Your task to perform on an android device: turn notification dots off Image 0: 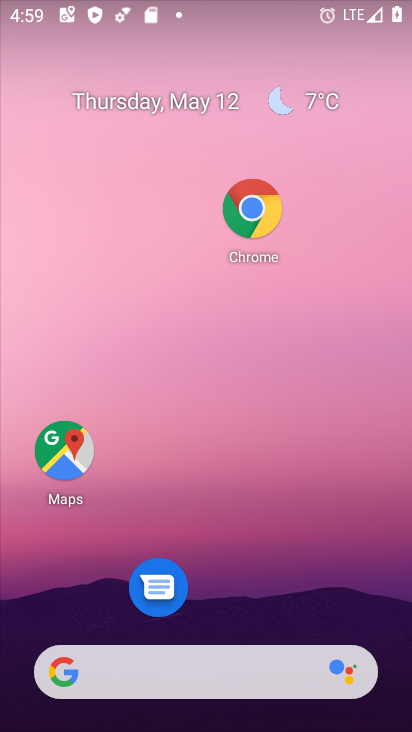
Step 0: drag from (250, 598) to (32, 129)
Your task to perform on an android device: turn notification dots off Image 1: 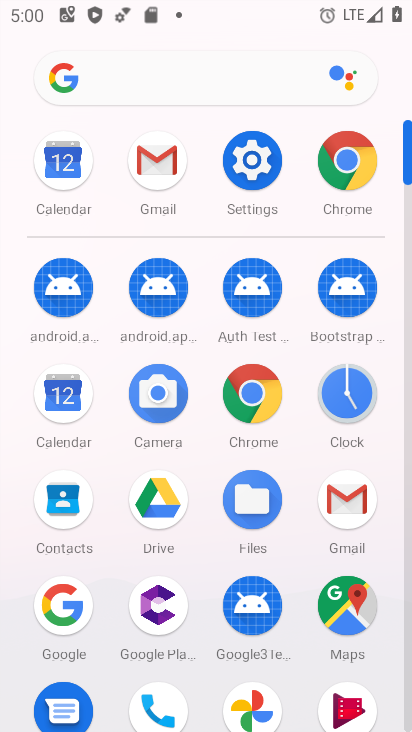
Step 1: click (256, 175)
Your task to perform on an android device: turn notification dots off Image 2: 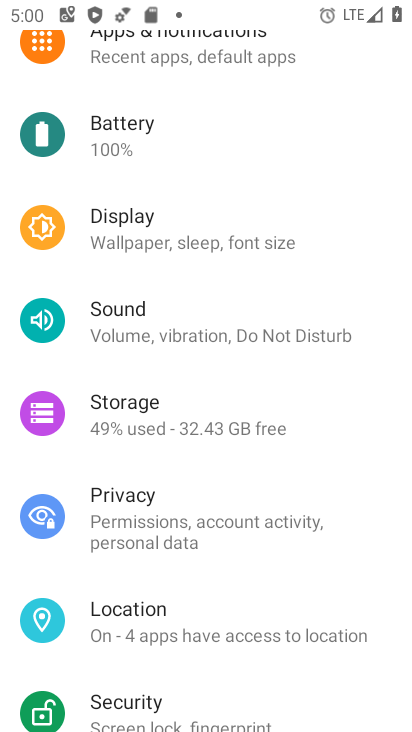
Step 2: drag from (198, 566) to (219, 239)
Your task to perform on an android device: turn notification dots off Image 3: 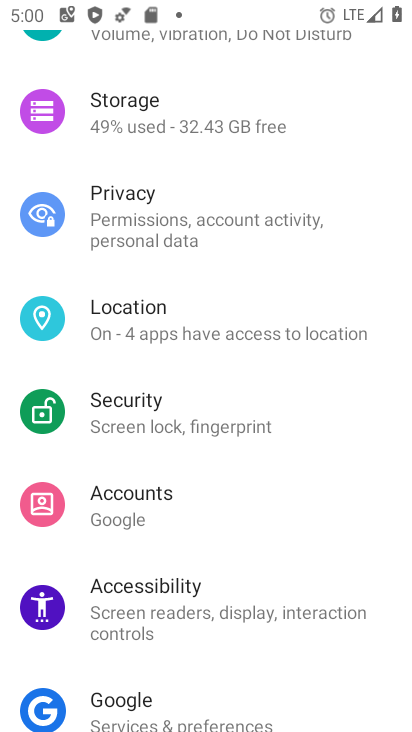
Step 3: drag from (248, 127) to (227, 570)
Your task to perform on an android device: turn notification dots off Image 4: 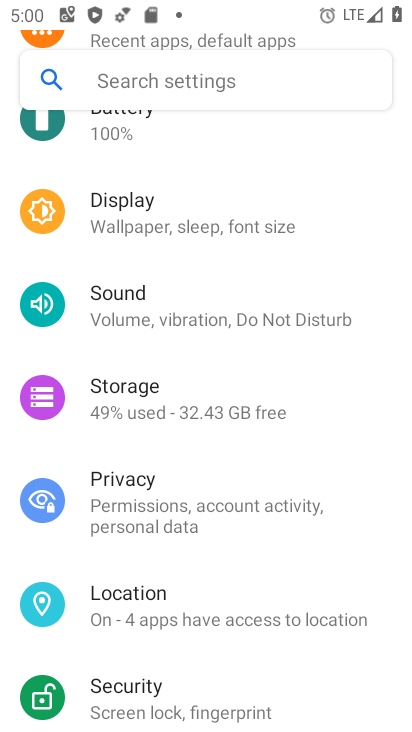
Step 4: drag from (209, 213) to (205, 594)
Your task to perform on an android device: turn notification dots off Image 5: 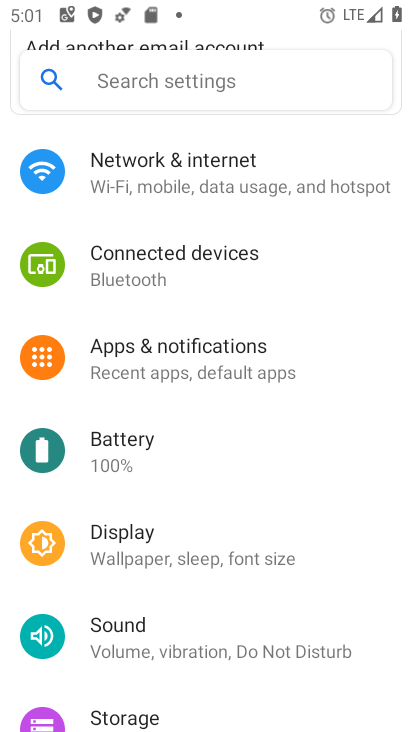
Step 5: drag from (205, 594) to (235, 347)
Your task to perform on an android device: turn notification dots off Image 6: 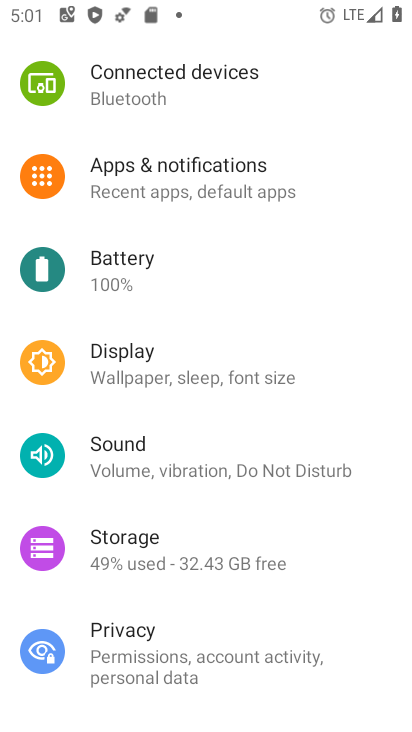
Step 6: drag from (143, 265) to (153, 585)
Your task to perform on an android device: turn notification dots off Image 7: 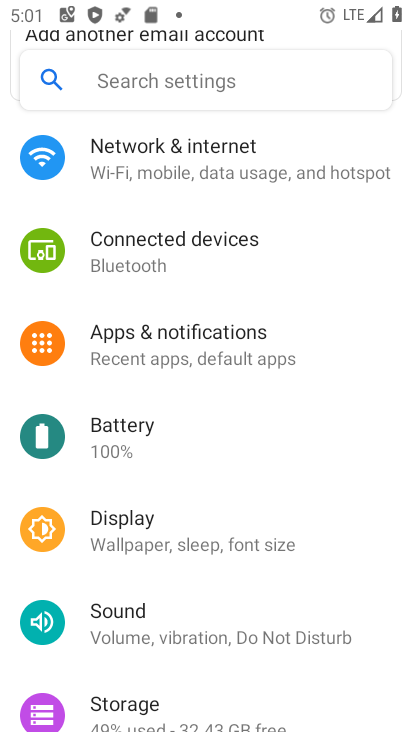
Step 7: click (150, 344)
Your task to perform on an android device: turn notification dots off Image 8: 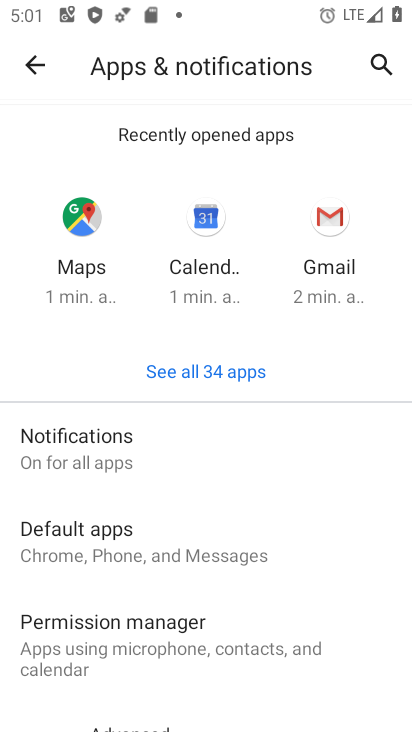
Step 8: drag from (240, 625) to (267, 236)
Your task to perform on an android device: turn notification dots off Image 9: 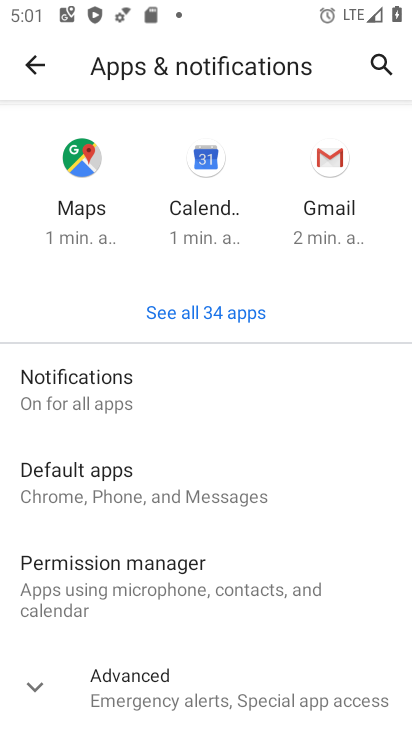
Step 9: click (104, 399)
Your task to perform on an android device: turn notification dots off Image 10: 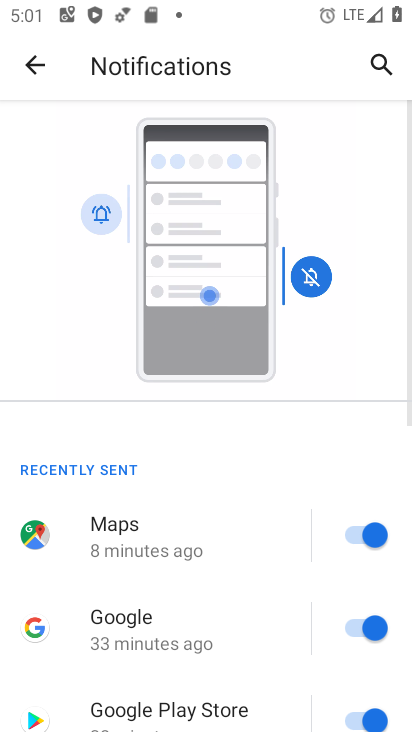
Step 10: drag from (222, 625) to (216, 194)
Your task to perform on an android device: turn notification dots off Image 11: 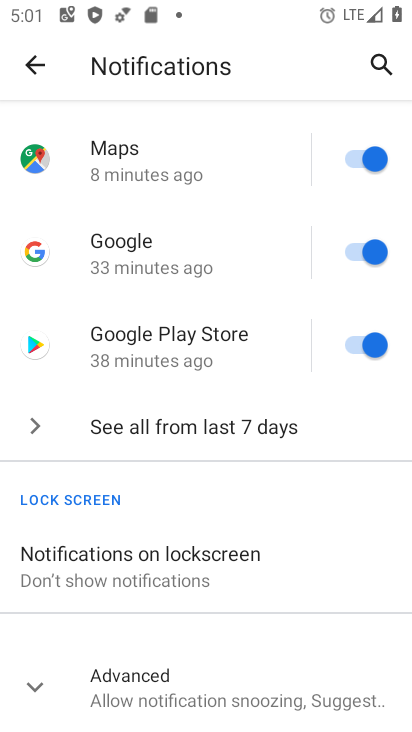
Step 11: drag from (236, 347) to (251, 215)
Your task to perform on an android device: turn notification dots off Image 12: 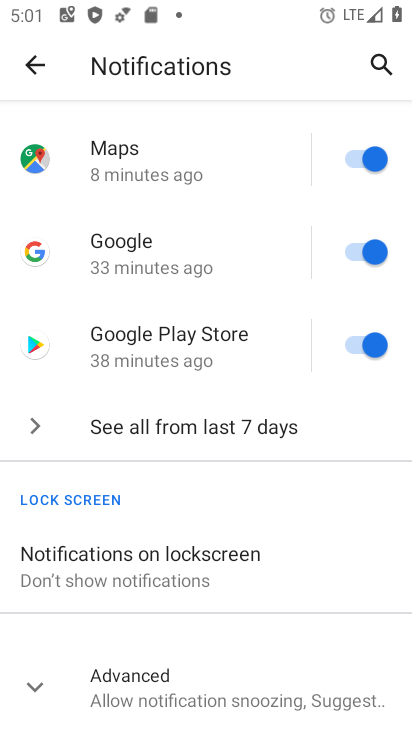
Step 12: click (151, 693)
Your task to perform on an android device: turn notification dots off Image 13: 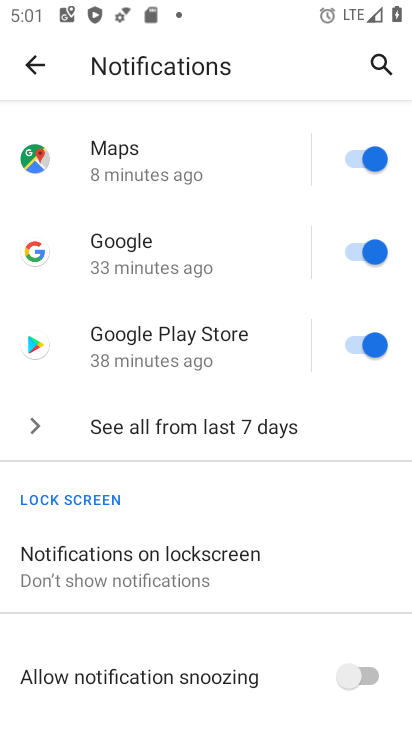
Step 13: drag from (154, 689) to (166, 136)
Your task to perform on an android device: turn notification dots off Image 14: 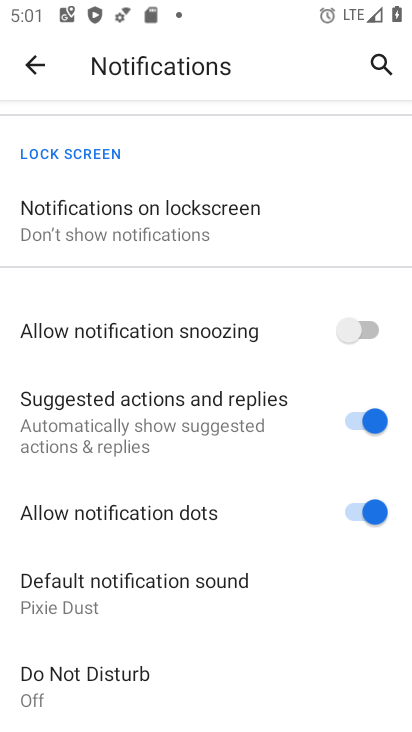
Step 14: drag from (205, 676) to (186, 208)
Your task to perform on an android device: turn notification dots off Image 15: 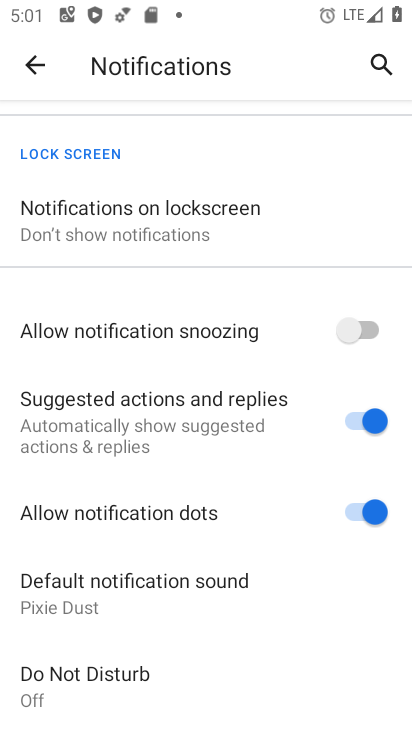
Step 15: drag from (162, 610) to (205, 331)
Your task to perform on an android device: turn notification dots off Image 16: 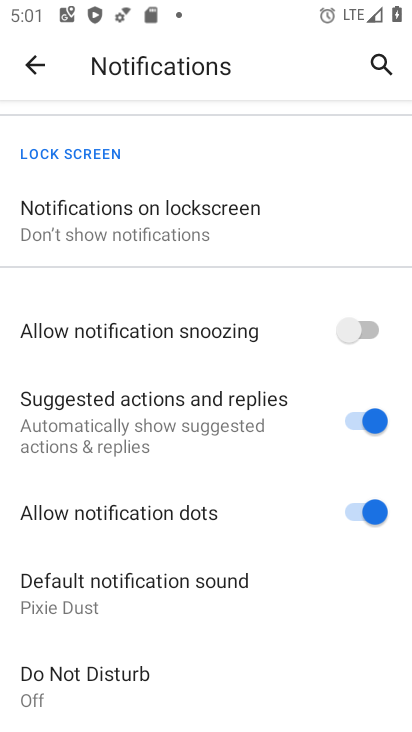
Step 16: click (349, 514)
Your task to perform on an android device: turn notification dots off Image 17: 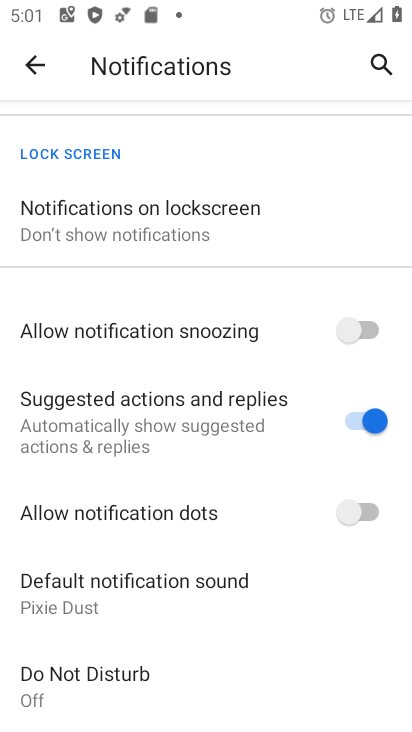
Step 17: task complete